Your task to perform on an android device: Open privacy settings Image 0: 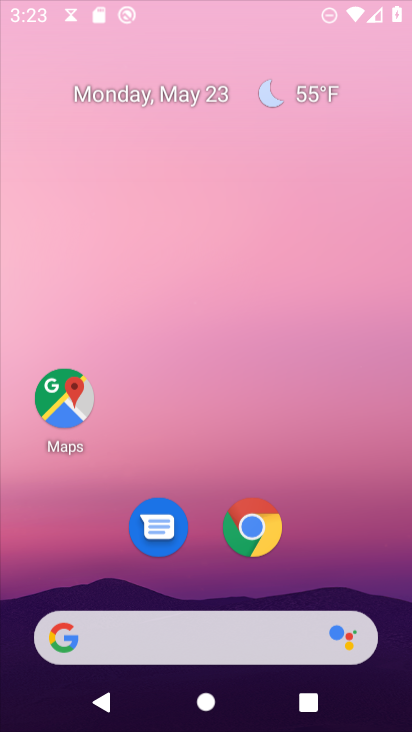
Step 0: press home button
Your task to perform on an android device: Open privacy settings Image 1: 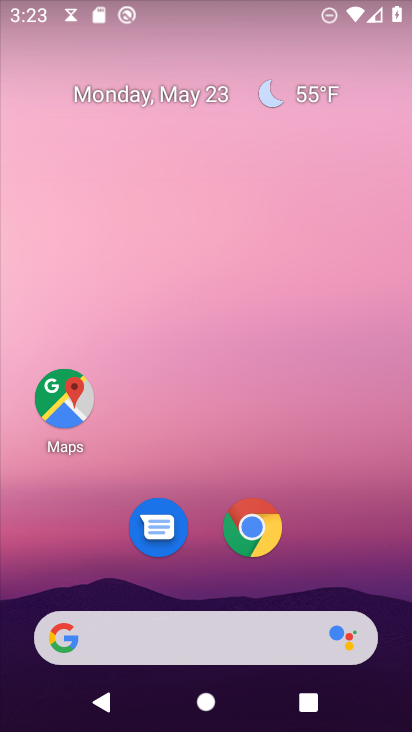
Step 1: drag from (204, 583) to (264, 89)
Your task to perform on an android device: Open privacy settings Image 2: 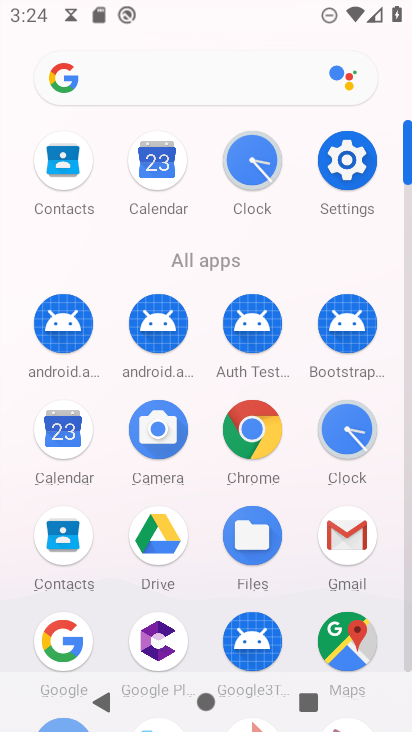
Step 2: click (351, 153)
Your task to perform on an android device: Open privacy settings Image 3: 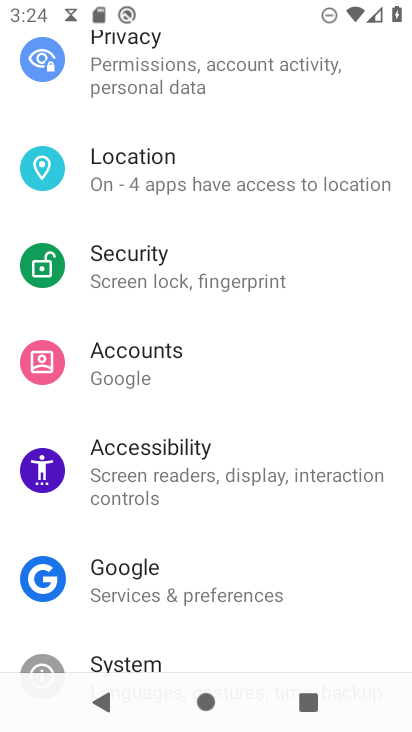
Step 3: click (180, 70)
Your task to perform on an android device: Open privacy settings Image 4: 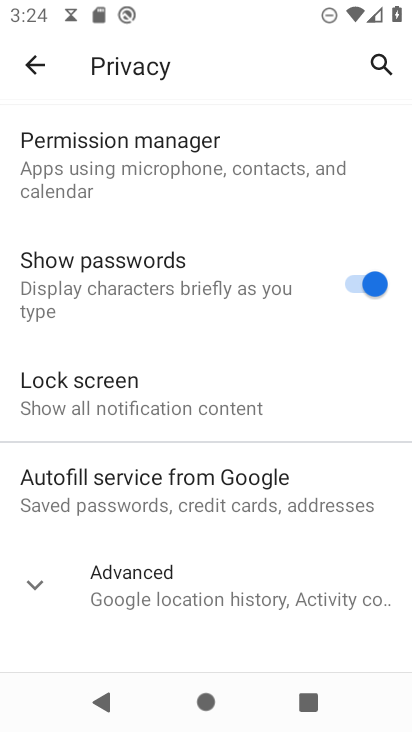
Step 4: click (32, 579)
Your task to perform on an android device: Open privacy settings Image 5: 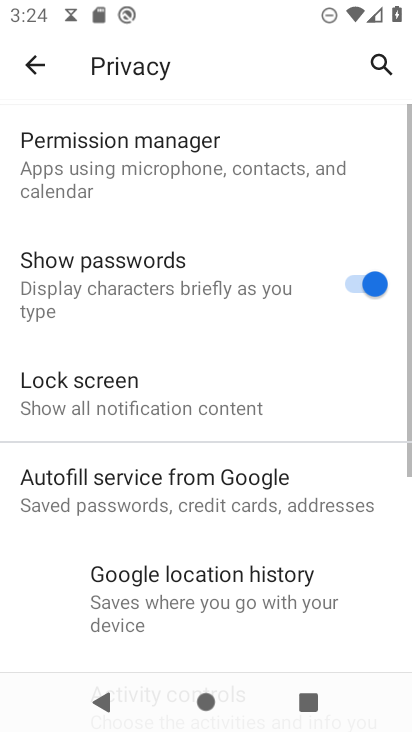
Step 5: task complete